Your task to perform on an android device: Open Wikipedia Image 0: 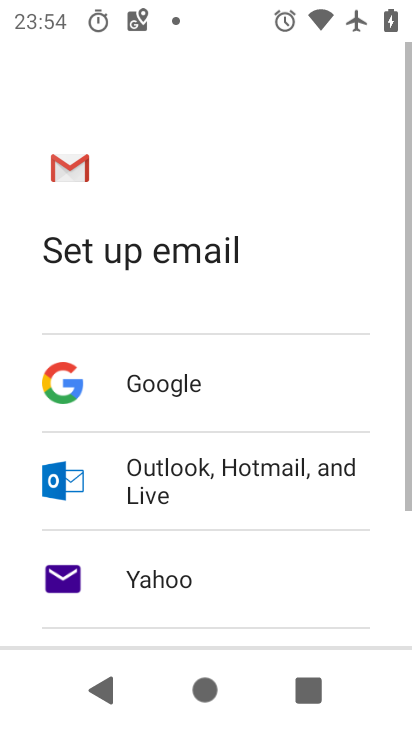
Step 0: press home button
Your task to perform on an android device: Open Wikipedia Image 1: 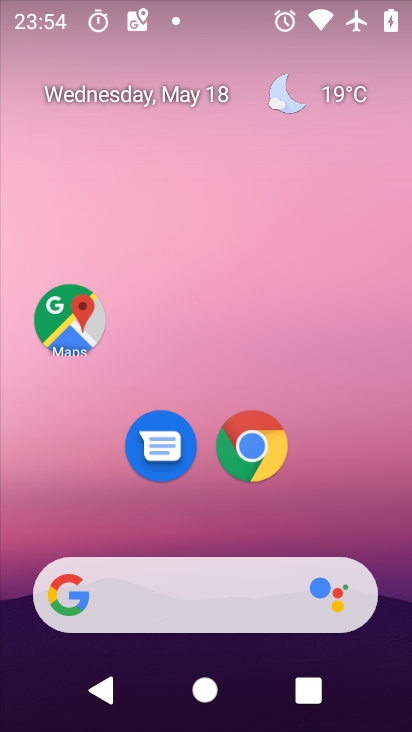
Step 1: click (255, 460)
Your task to perform on an android device: Open Wikipedia Image 2: 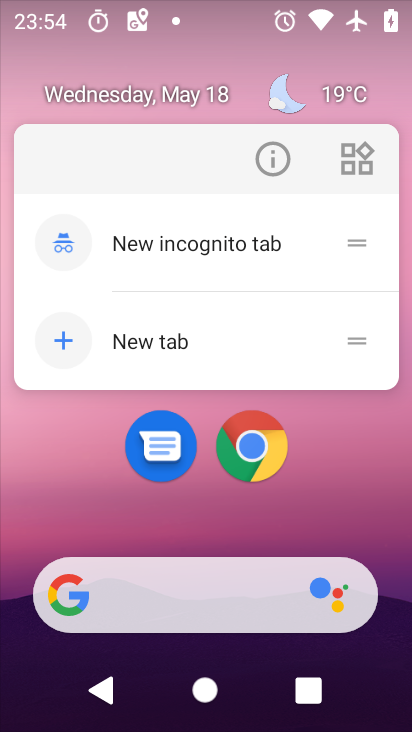
Step 2: click (252, 455)
Your task to perform on an android device: Open Wikipedia Image 3: 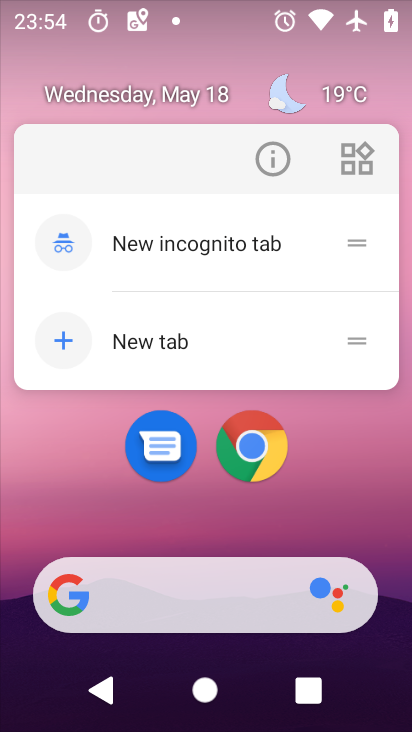
Step 3: click (257, 450)
Your task to perform on an android device: Open Wikipedia Image 4: 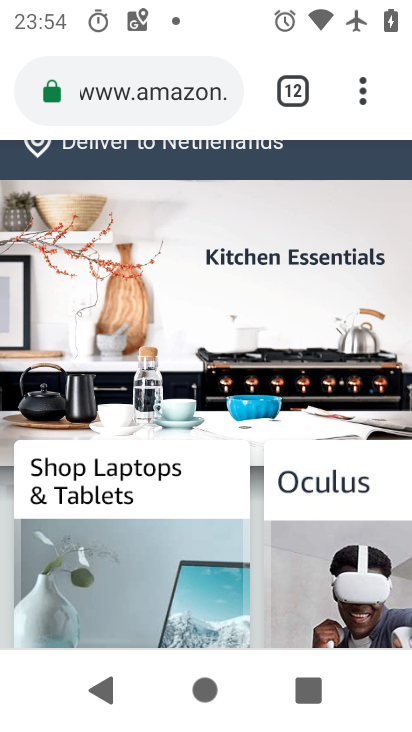
Step 4: drag from (366, 101) to (250, 175)
Your task to perform on an android device: Open Wikipedia Image 5: 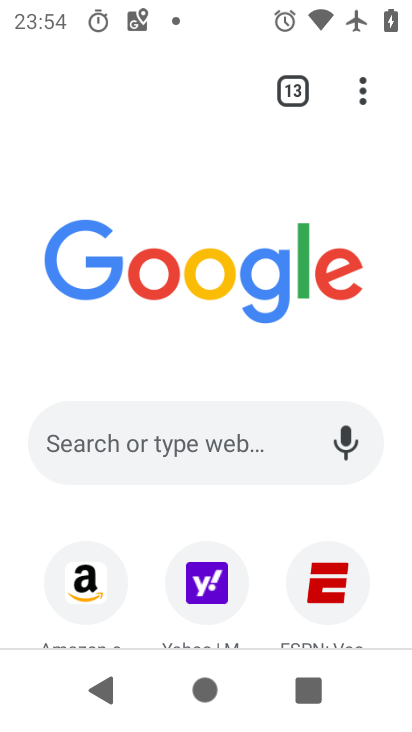
Step 5: drag from (276, 505) to (370, 189)
Your task to perform on an android device: Open Wikipedia Image 6: 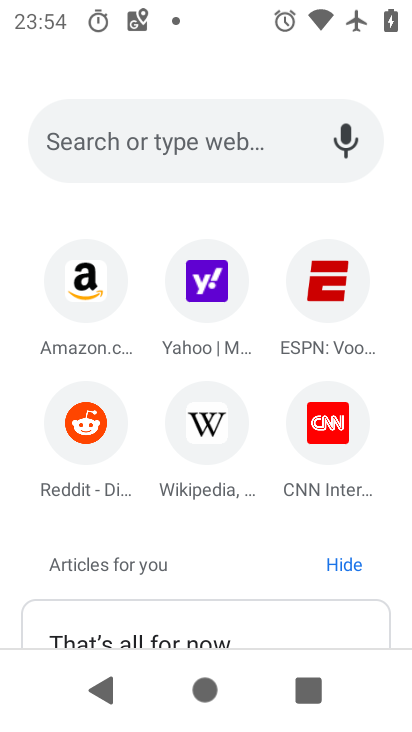
Step 6: click (213, 423)
Your task to perform on an android device: Open Wikipedia Image 7: 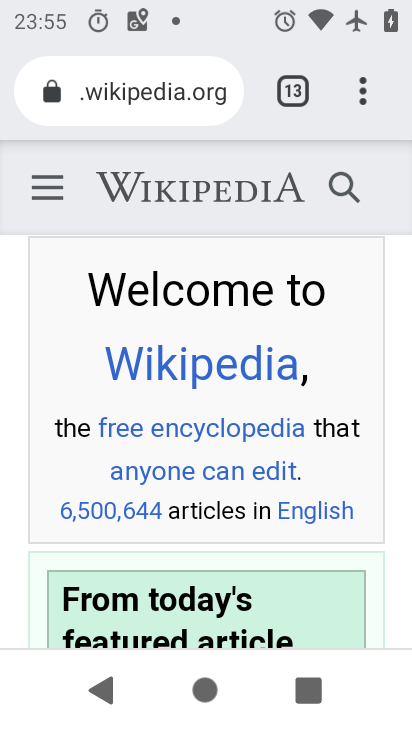
Step 7: task complete